Your task to perform on an android device: Show me productivity apps on the Play Store Image 0: 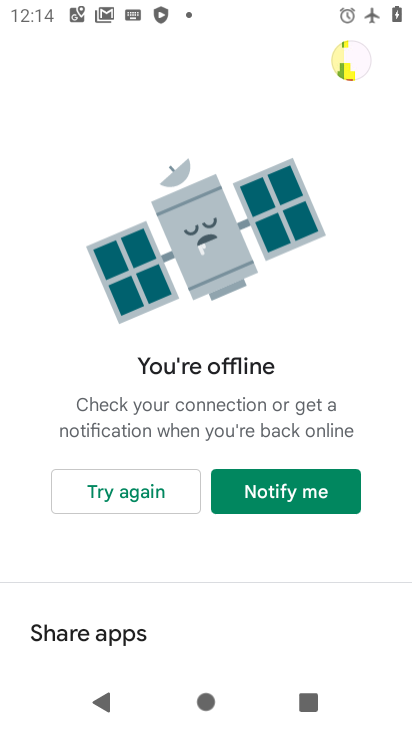
Step 0: press home button
Your task to perform on an android device: Show me productivity apps on the Play Store Image 1: 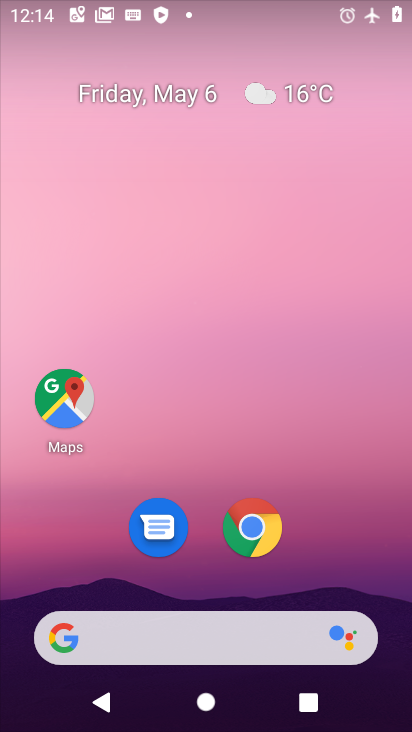
Step 1: drag from (335, 559) to (170, 166)
Your task to perform on an android device: Show me productivity apps on the Play Store Image 2: 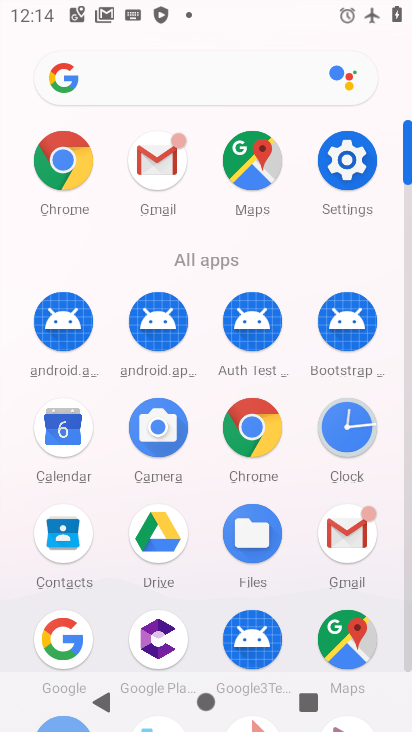
Step 2: drag from (193, 610) to (204, 235)
Your task to perform on an android device: Show me productivity apps on the Play Store Image 3: 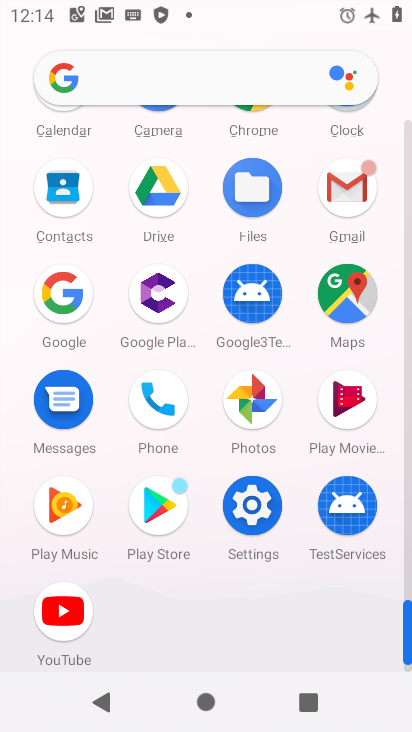
Step 3: click (147, 509)
Your task to perform on an android device: Show me productivity apps on the Play Store Image 4: 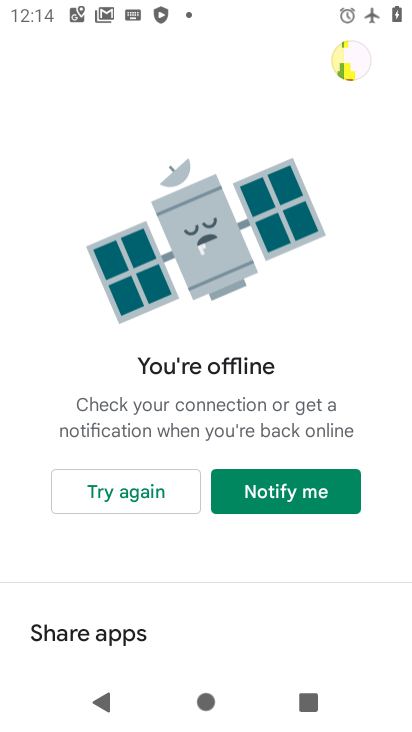
Step 4: click (139, 494)
Your task to perform on an android device: Show me productivity apps on the Play Store Image 5: 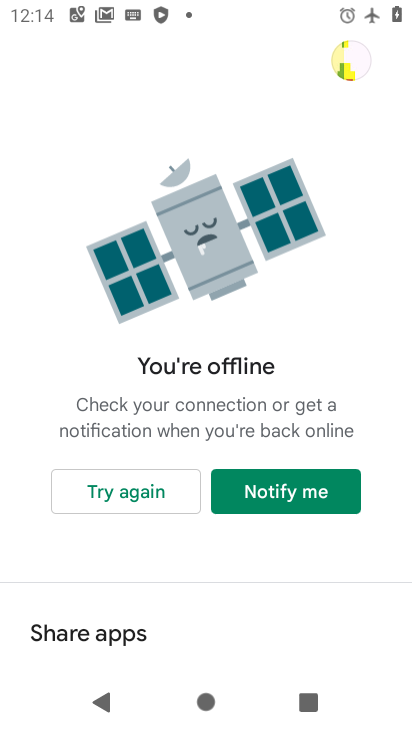
Step 5: task complete